Your task to perform on an android device: Open Maps and search for coffee Image 0: 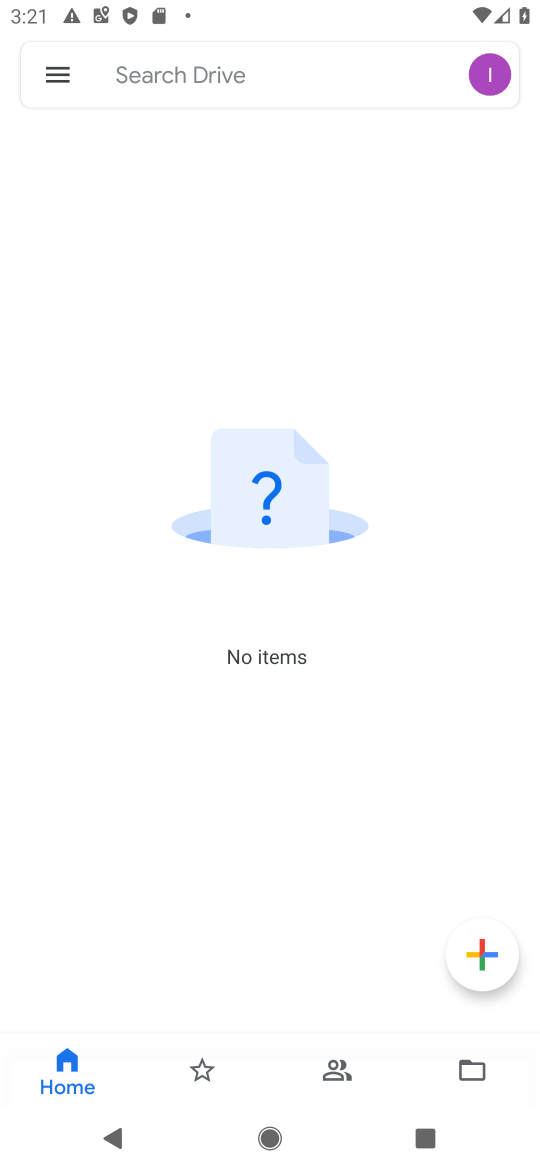
Step 0: press home button
Your task to perform on an android device: Open Maps and search for coffee Image 1: 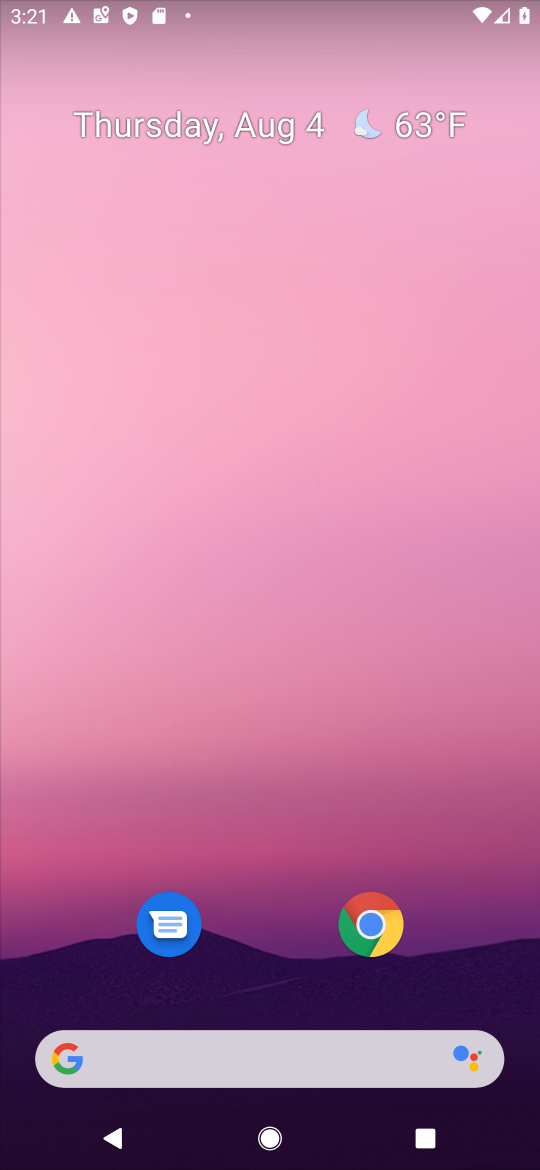
Step 1: drag from (274, 939) to (192, 36)
Your task to perform on an android device: Open Maps and search for coffee Image 2: 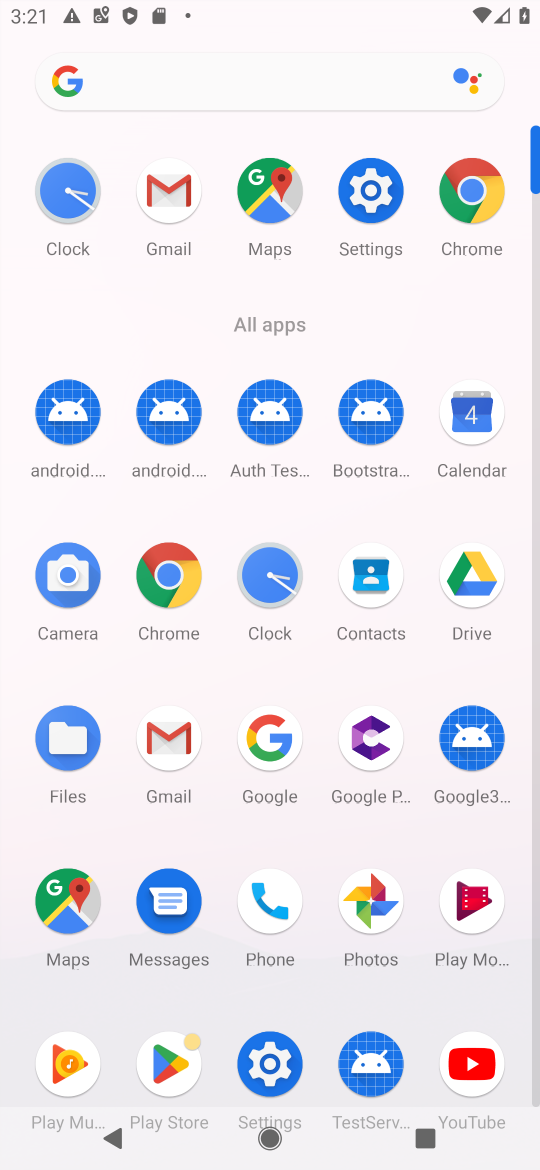
Step 2: click (261, 186)
Your task to perform on an android device: Open Maps and search for coffee Image 3: 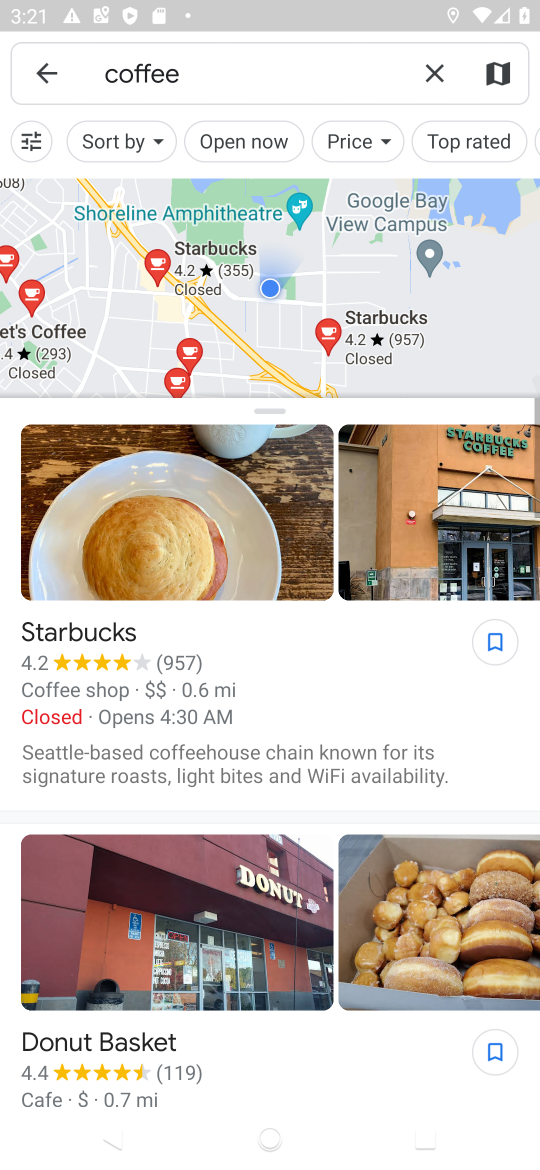
Step 3: task complete